Your task to perform on an android device: Open maps Image 0: 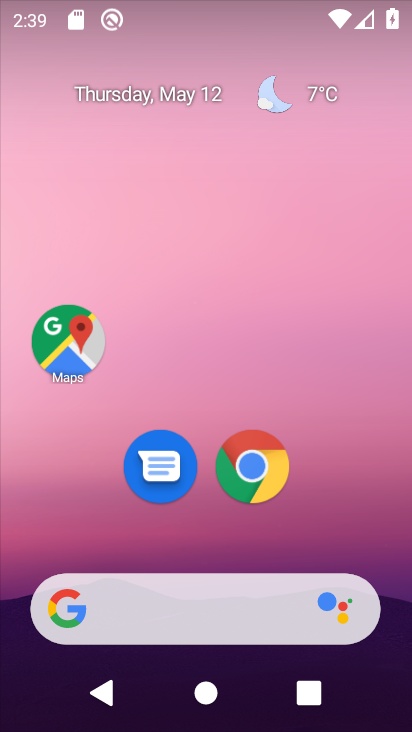
Step 0: drag from (352, 500) to (0, 89)
Your task to perform on an android device: Open maps Image 1: 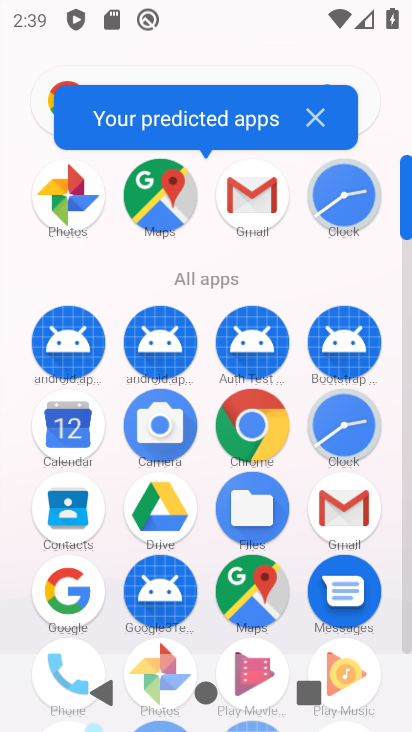
Step 1: click (156, 187)
Your task to perform on an android device: Open maps Image 2: 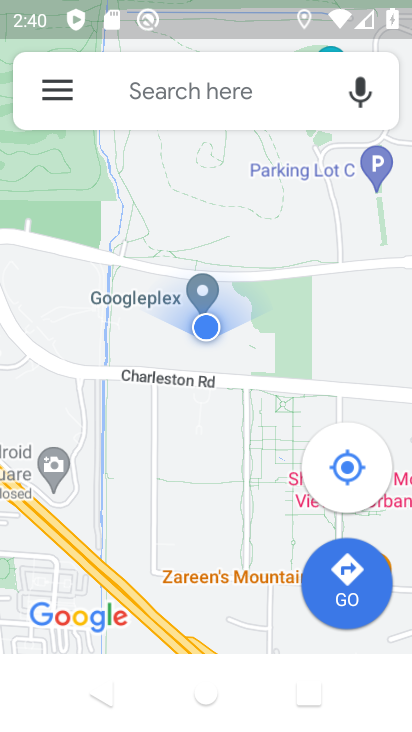
Step 2: task complete